Your task to perform on an android device: Open privacy settings Image 0: 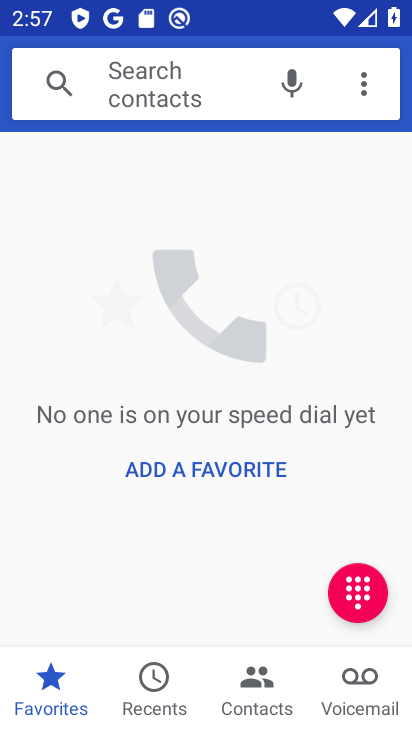
Step 0: press home button
Your task to perform on an android device: Open privacy settings Image 1: 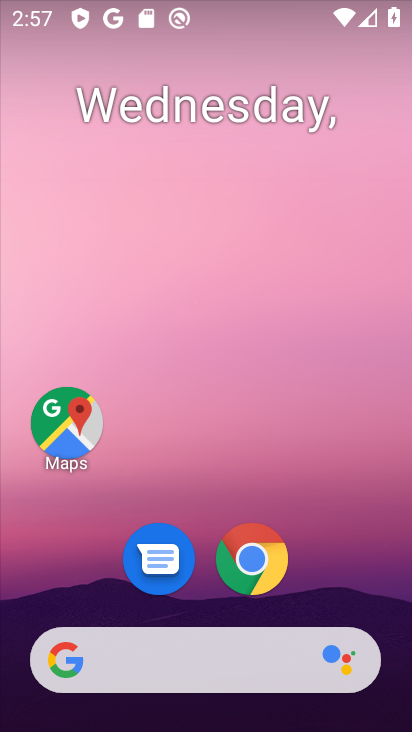
Step 1: drag from (189, 592) to (205, 197)
Your task to perform on an android device: Open privacy settings Image 2: 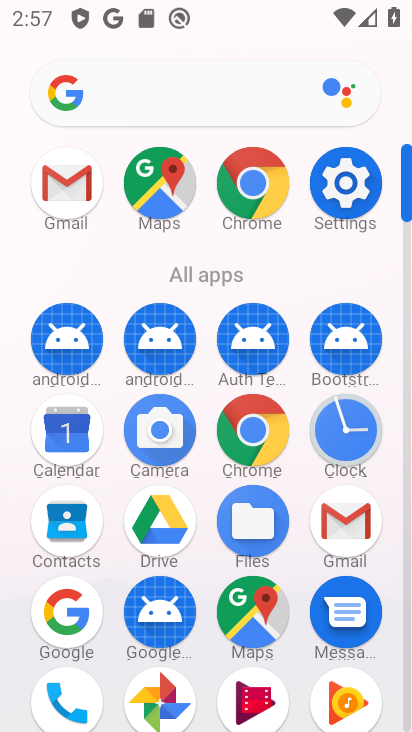
Step 2: click (343, 196)
Your task to perform on an android device: Open privacy settings Image 3: 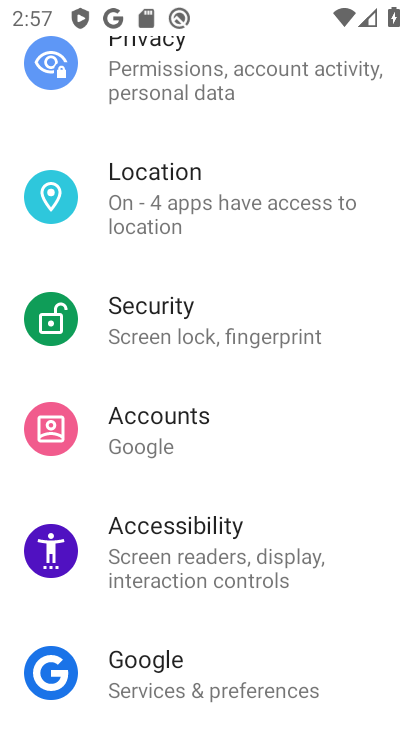
Step 3: click (192, 80)
Your task to perform on an android device: Open privacy settings Image 4: 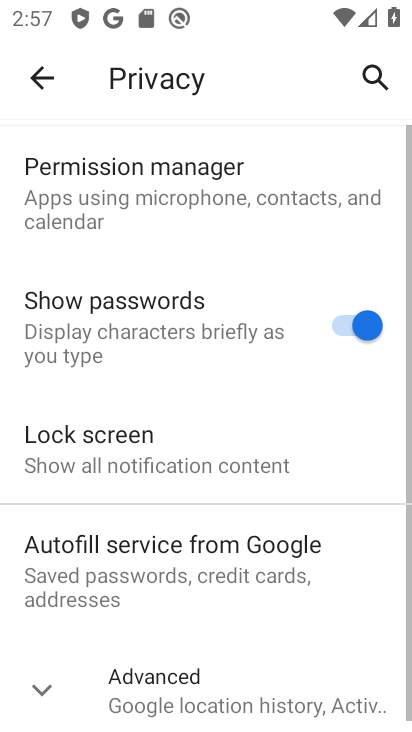
Step 4: task complete